Your task to perform on an android device: Search for razer blade on amazon.com, select the first entry, and add it to the cart. Image 0: 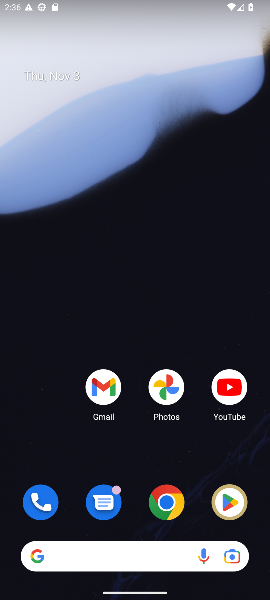
Step 0: drag from (139, 531) to (153, 195)
Your task to perform on an android device: Search for razer blade on amazon.com, select the first entry, and add it to the cart. Image 1: 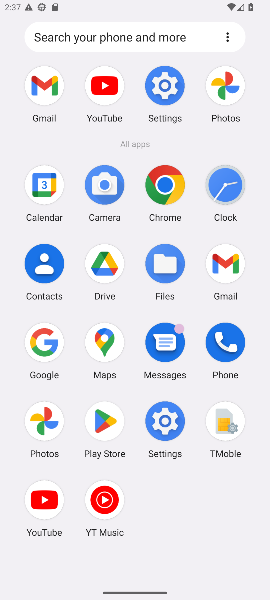
Step 1: click (53, 354)
Your task to perform on an android device: Search for razer blade on amazon.com, select the first entry, and add it to the cart. Image 2: 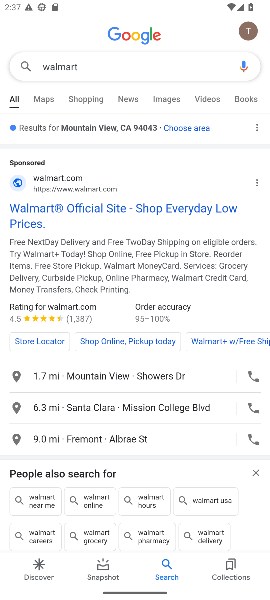
Step 2: click (180, 64)
Your task to perform on an android device: Search for razer blade on amazon.com, select the first entry, and add it to the cart. Image 3: 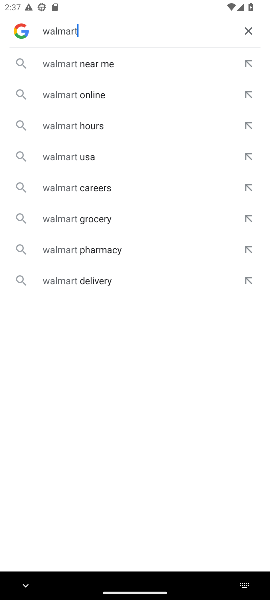
Step 3: click (253, 31)
Your task to perform on an android device: Search for razer blade on amazon.com, select the first entry, and add it to the cart. Image 4: 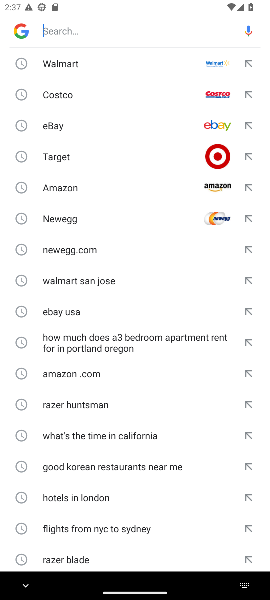
Step 4: type "amazon.com"
Your task to perform on an android device: Search for razer blade on amazon.com, select the first entry, and add it to the cart. Image 5: 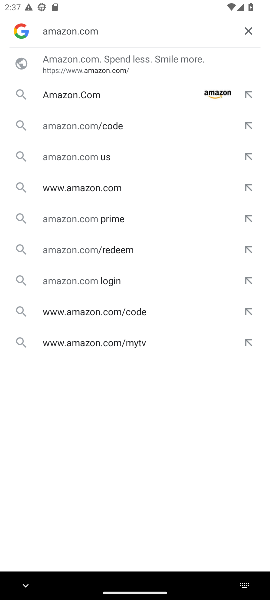
Step 5: click (122, 97)
Your task to perform on an android device: Search for razer blade on amazon.com, select the first entry, and add it to the cart. Image 6: 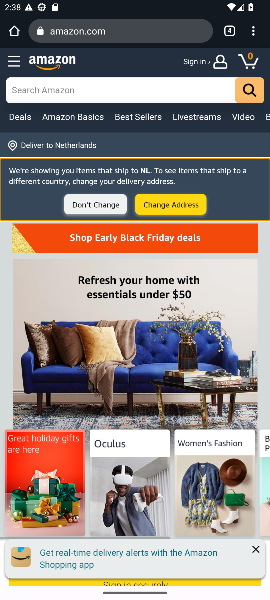
Step 6: click (109, 90)
Your task to perform on an android device: Search for razer blade on amazon.com, select the first entry, and add it to the cart. Image 7: 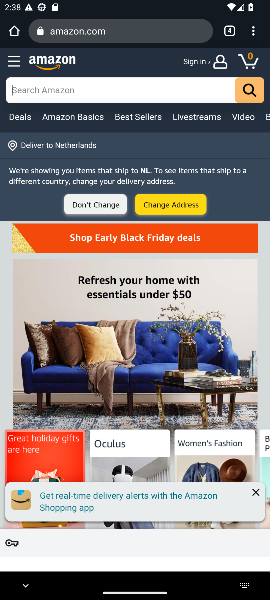
Step 7: type "razer blade"
Your task to perform on an android device: Search for razer blade on amazon.com, select the first entry, and add it to the cart. Image 8: 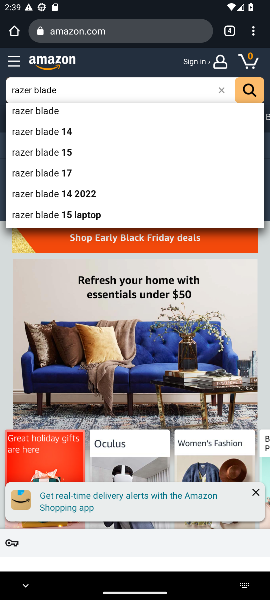
Step 8: click (54, 107)
Your task to perform on an android device: Search for razer blade on amazon.com, select the first entry, and add it to the cart. Image 9: 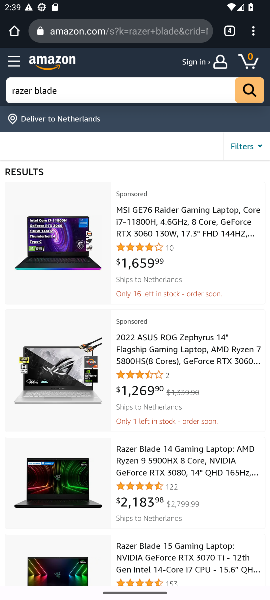
Step 9: click (67, 223)
Your task to perform on an android device: Search for razer blade on amazon.com, select the first entry, and add it to the cart. Image 10: 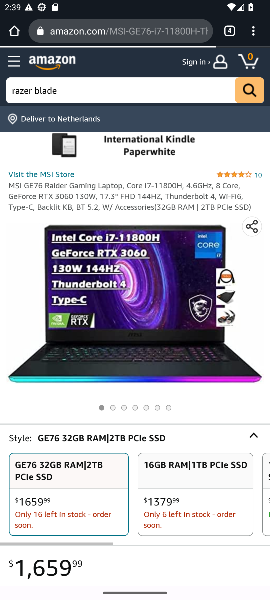
Step 10: drag from (170, 438) to (134, 267)
Your task to perform on an android device: Search for razer blade on amazon.com, select the first entry, and add it to the cart. Image 11: 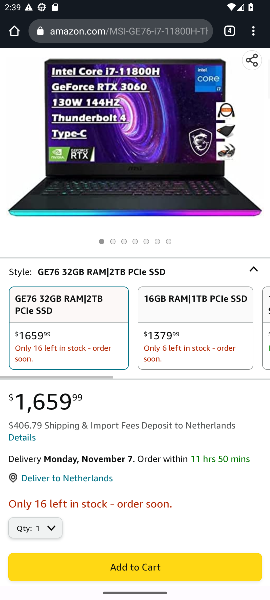
Step 11: drag from (166, 429) to (169, 312)
Your task to perform on an android device: Search for razer blade on amazon.com, select the first entry, and add it to the cart. Image 12: 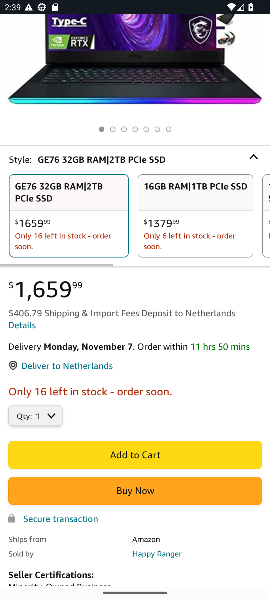
Step 12: click (187, 452)
Your task to perform on an android device: Search for razer blade on amazon.com, select the first entry, and add it to the cart. Image 13: 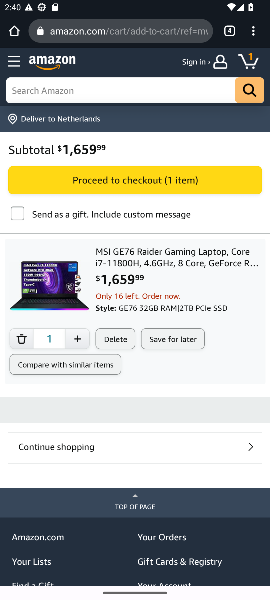
Step 13: task complete